Your task to perform on an android device: turn on priority inbox in the gmail app Image 0: 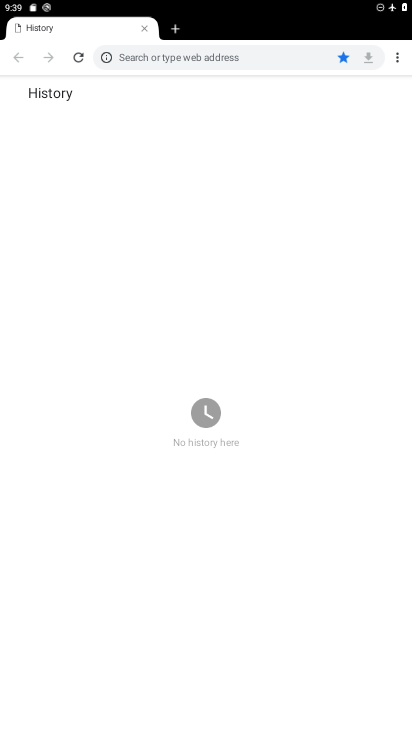
Step 0: press home button
Your task to perform on an android device: turn on priority inbox in the gmail app Image 1: 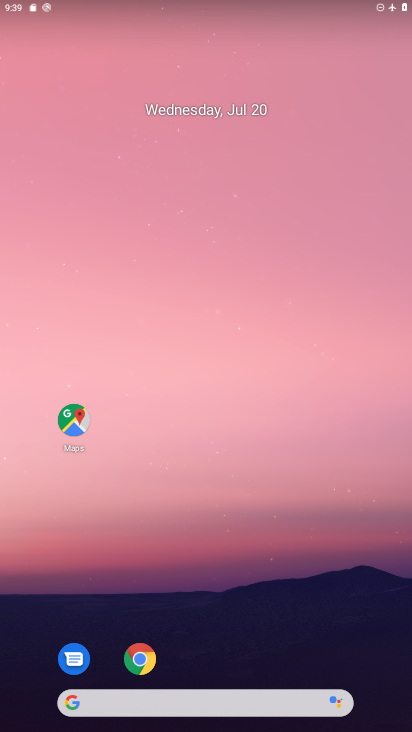
Step 1: drag from (293, 617) to (273, 60)
Your task to perform on an android device: turn on priority inbox in the gmail app Image 2: 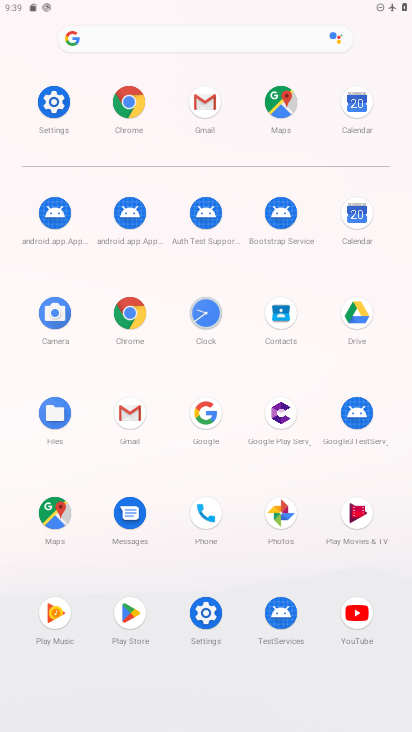
Step 2: click (196, 103)
Your task to perform on an android device: turn on priority inbox in the gmail app Image 3: 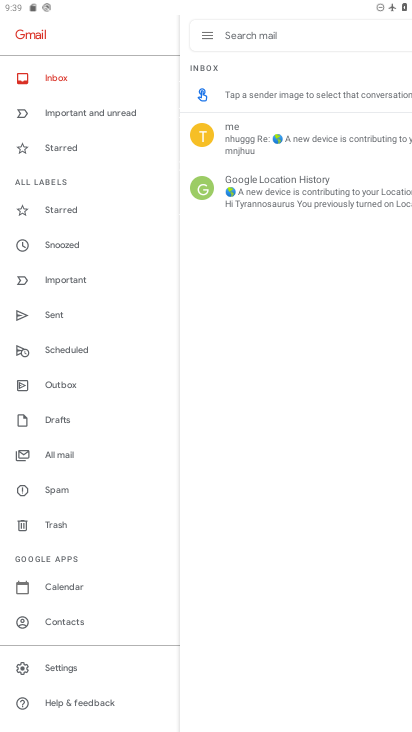
Step 3: click (71, 666)
Your task to perform on an android device: turn on priority inbox in the gmail app Image 4: 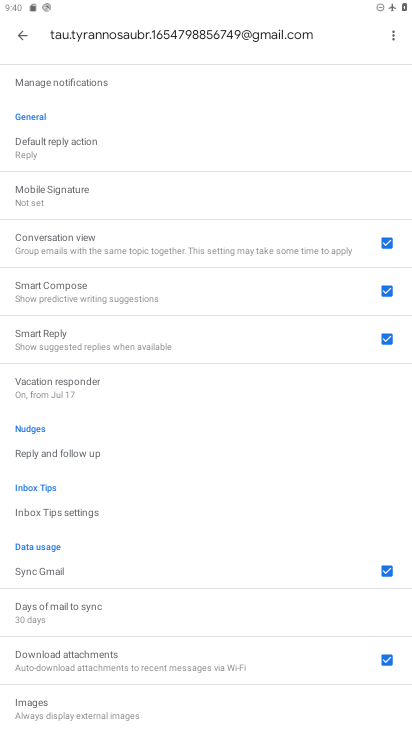
Step 4: drag from (85, 95) to (123, 665)
Your task to perform on an android device: turn on priority inbox in the gmail app Image 5: 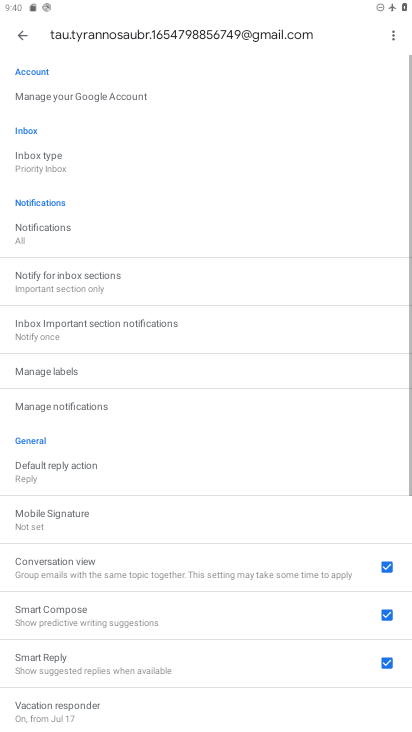
Step 5: click (30, 160)
Your task to perform on an android device: turn on priority inbox in the gmail app Image 6: 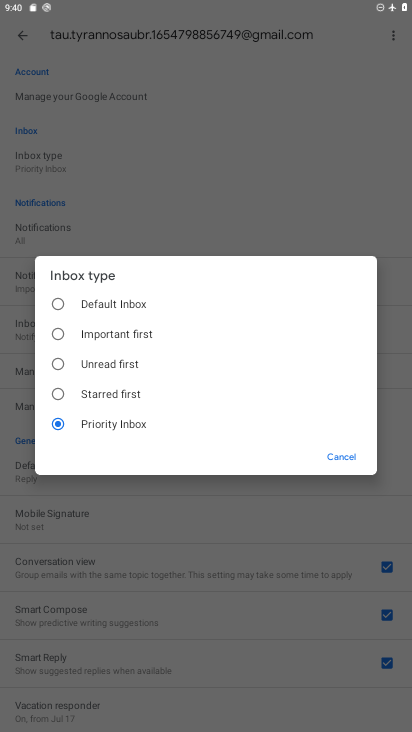
Step 6: task complete